Your task to perform on an android device: change notifications settings Image 0: 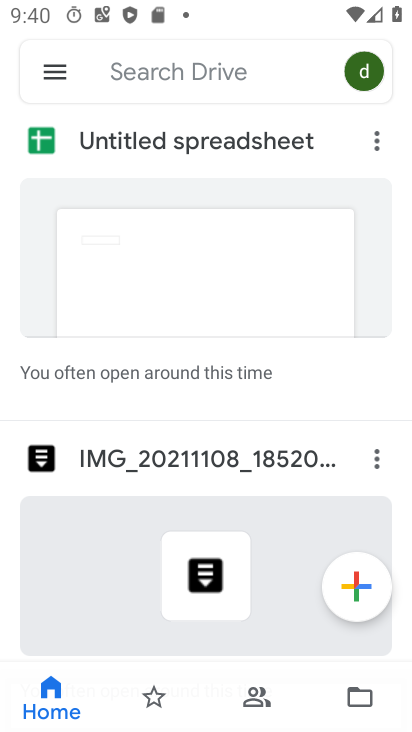
Step 0: press home button
Your task to perform on an android device: change notifications settings Image 1: 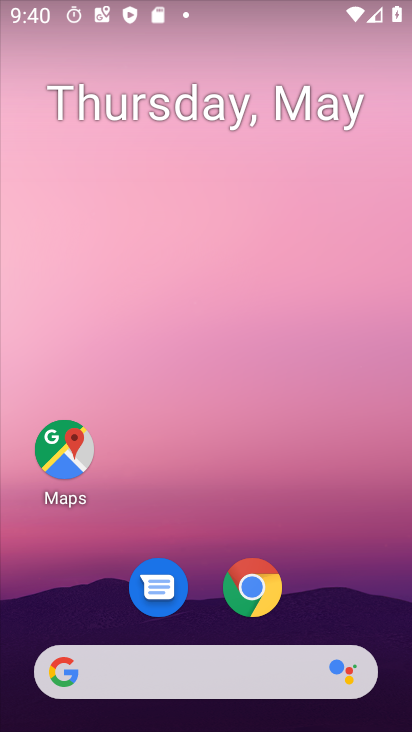
Step 1: drag from (362, 645) to (330, 6)
Your task to perform on an android device: change notifications settings Image 2: 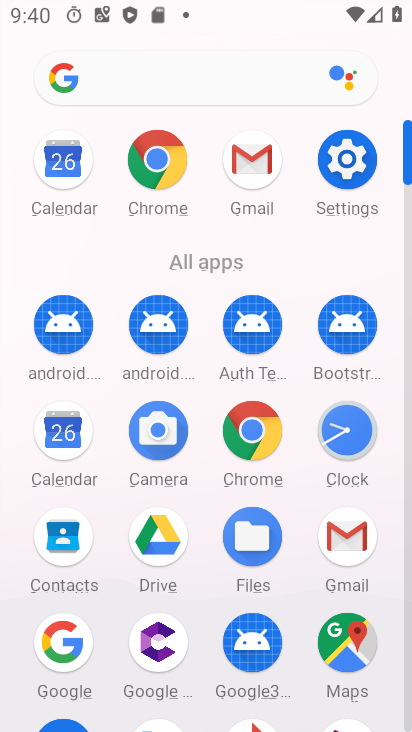
Step 2: click (347, 160)
Your task to perform on an android device: change notifications settings Image 3: 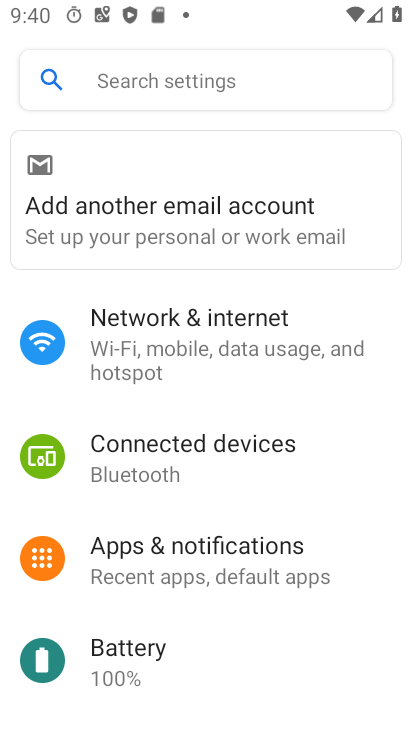
Step 3: click (198, 570)
Your task to perform on an android device: change notifications settings Image 4: 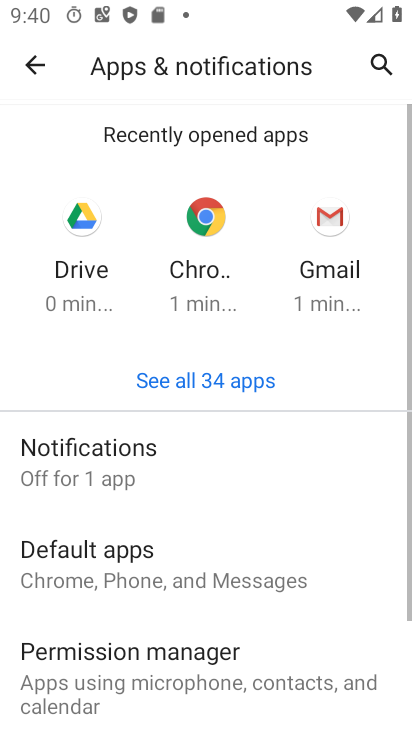
Step 4: drag from (162, 580) to (179, 403)
Your task to perform on an android device: change notifications settings Image 5: 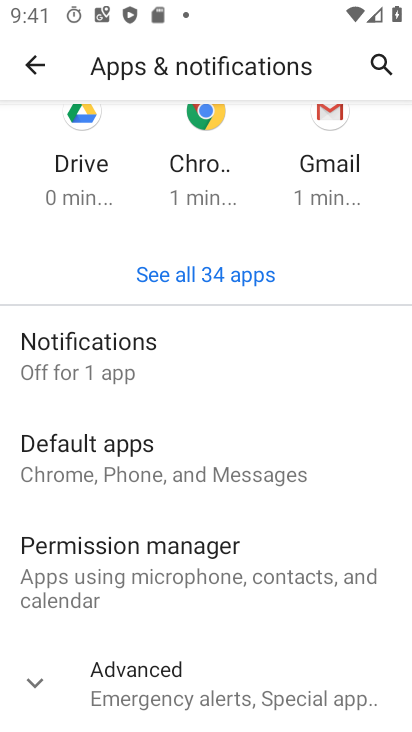
Step 5: click (81, 339)
Your task to perform on an android device: change notifications settings Image 6: 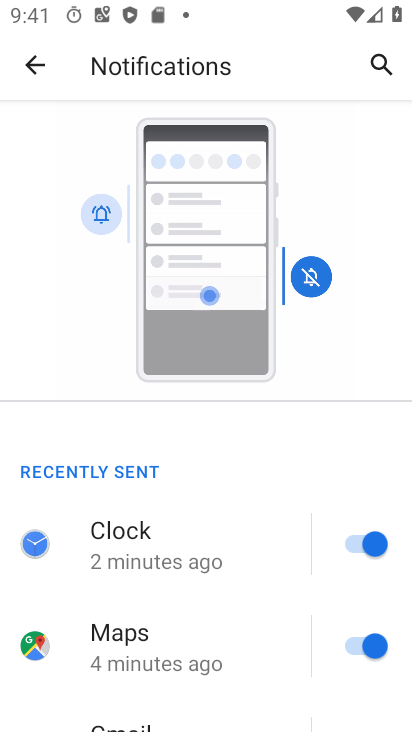
Step 6: drag from (201, 565) to (180, 231)
Your task to perform on an android device: change notifications settings Image 7: 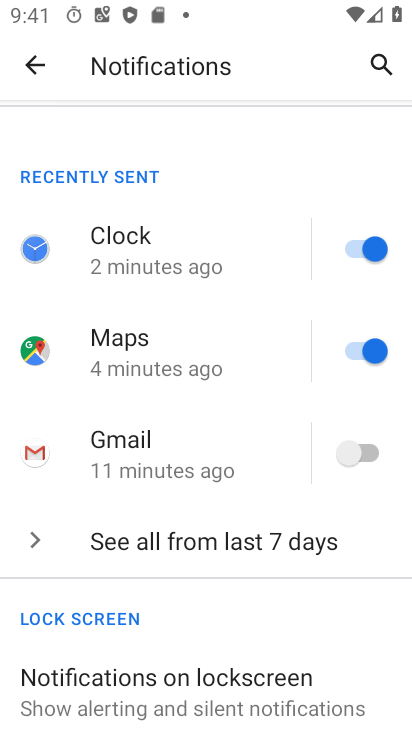
Step 7: click (196, 540)
Your task to perform on an android device: change notifications settings Image 8: 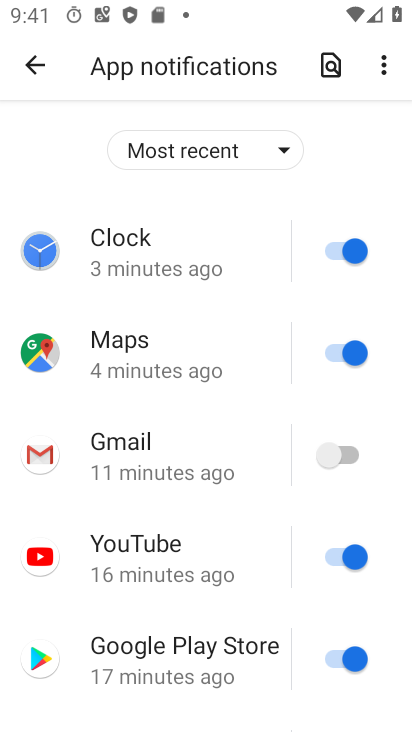
Step 8: click (284, 154)
Your task to perform on an android device: change notifications settings Image 9: 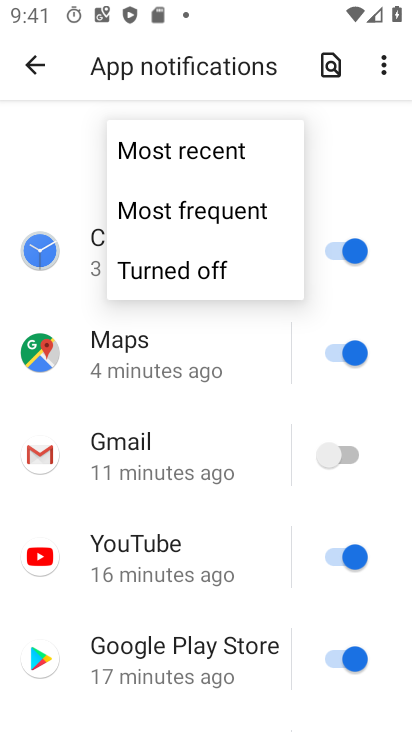
Step 9: click (226, 207)
Your task to perform on an android device: change notifications settings Image 10: 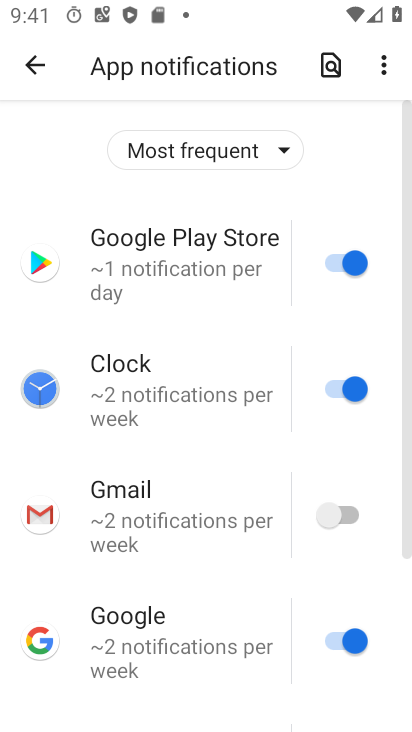
Step 10: task complete